Your task to perform on an android device: Turn off the flashlight Image 0: 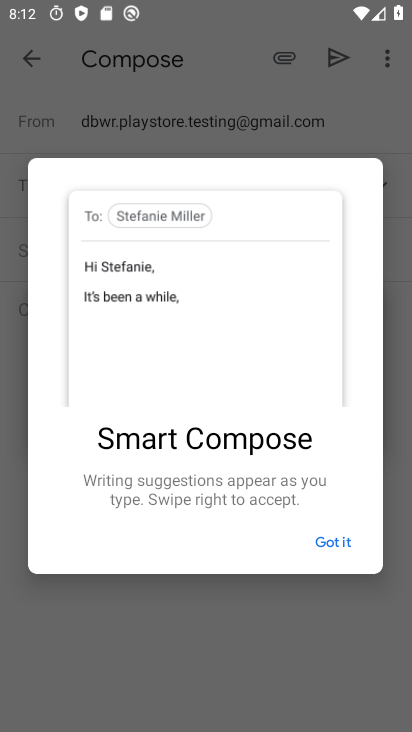
Step 0: press home button
Your task to perform on an android device: Turn off the flashlight Image 1: 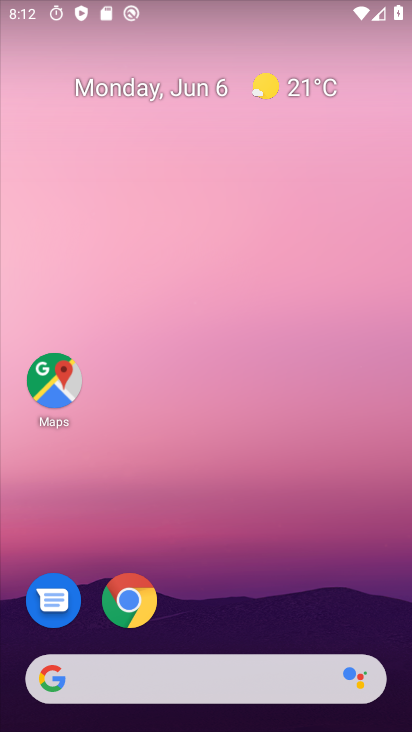
Step 1: drag from (215, 538) to (207, 15)
Your task to perform on an android device: Turn off the flashlight Image 2: 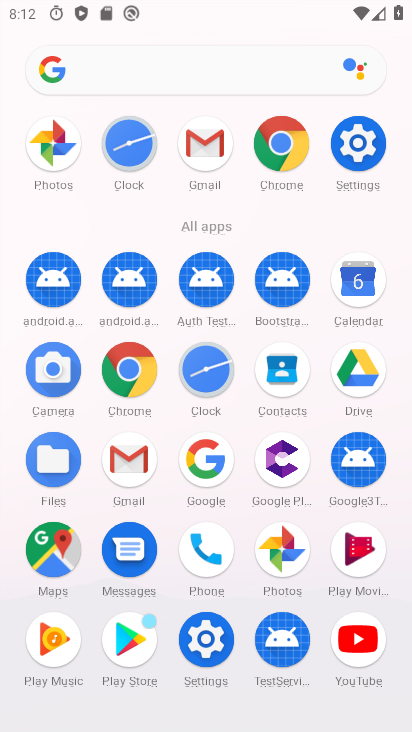
Step 2: click (359, 139)
Your task to perform on an android device: Turn off the flashlight Image 3: 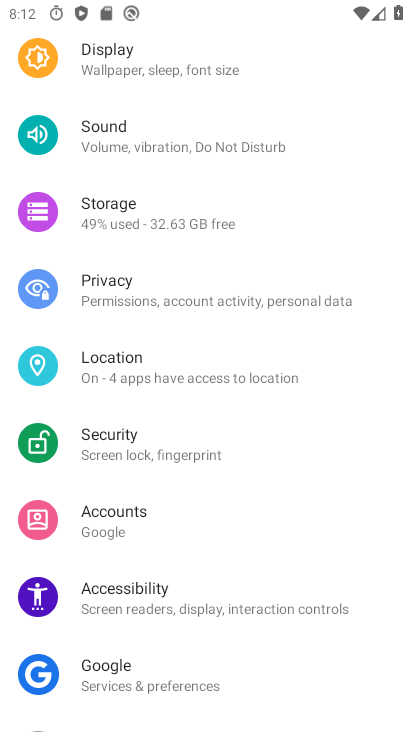
Step 3: drag from (303, 130) to (274, 622)
Your task to perform on an android device: Turn off the flashlight Image 4: 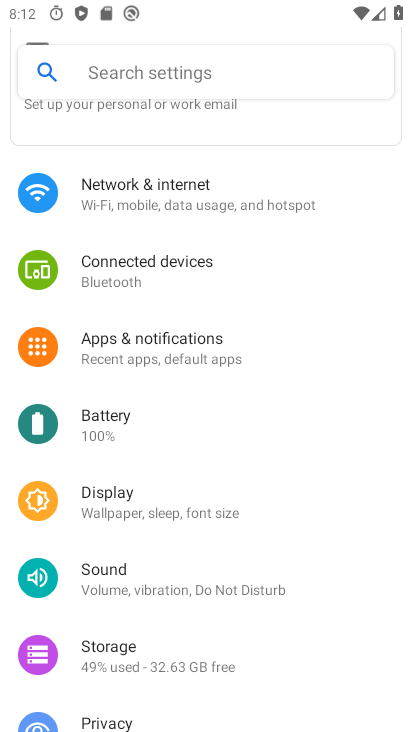
Step 4: click (238, 182)
Your task to perform on an android device: Turn off the flashlight Image 5: 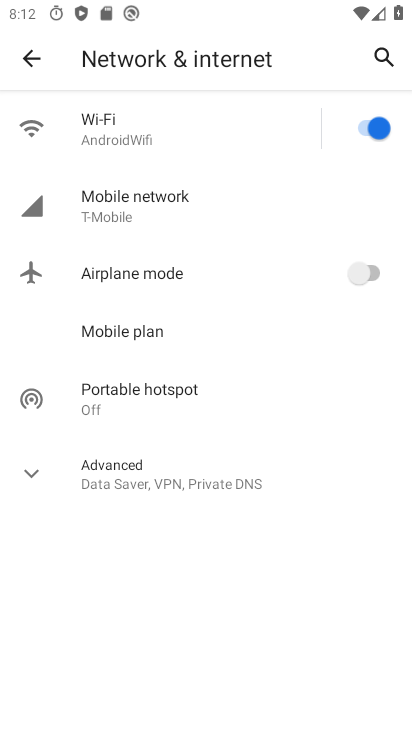
Step 5: click (34, 483)
Your task to perform on an android device: Turn off the flashlight Image 6: 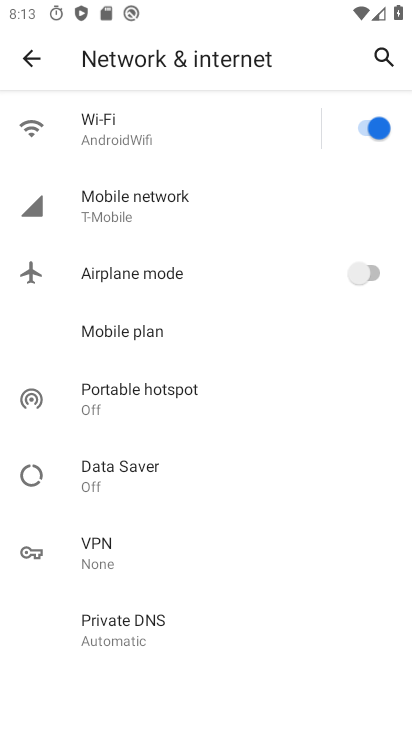
Step 6: task complete